Your task to perform on an android device: open sync settings in chrome Image 0: 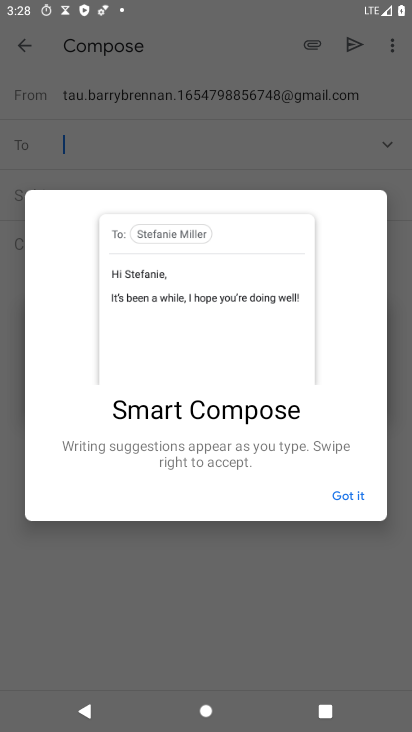
Step 0: press home button
Your task to perform on an android device: open sync settings in chrome Image 1: 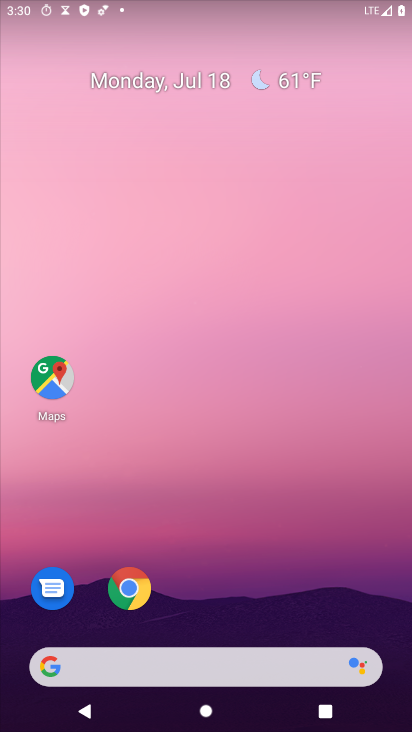
Step 1: drag from (256, 488) to (237, 5)
Your task to perform on an android device: open sync settings in chrome Image 2: 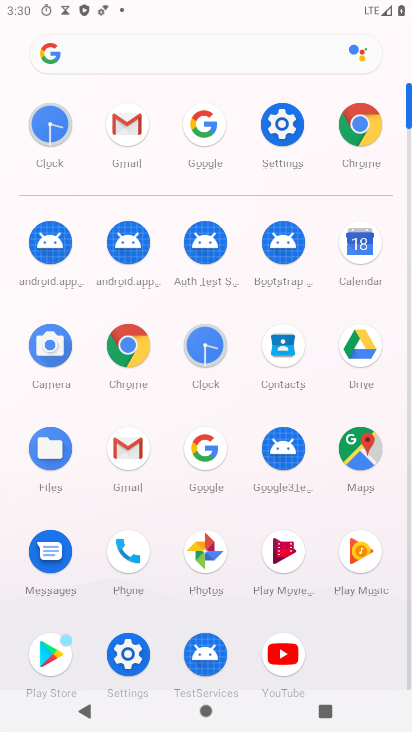
Step 2: click (358, 125)
Your task to perform on an android device: open sync settings in chrome Image 3: 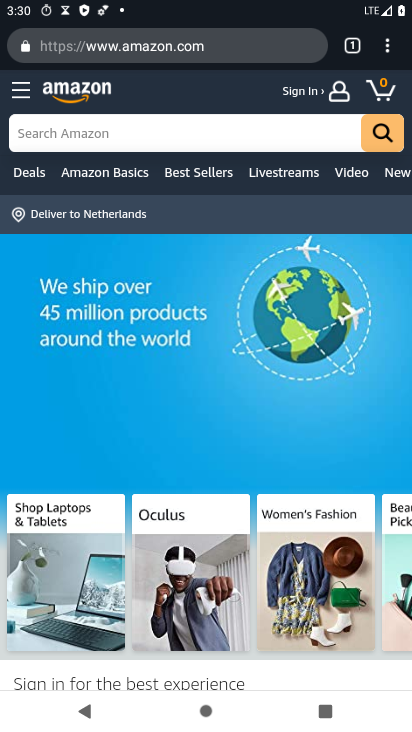
Step 3: drag from (394, 43) to (298, 548)
Your task to perform on an android device: open sync settings in chrome Image 4: 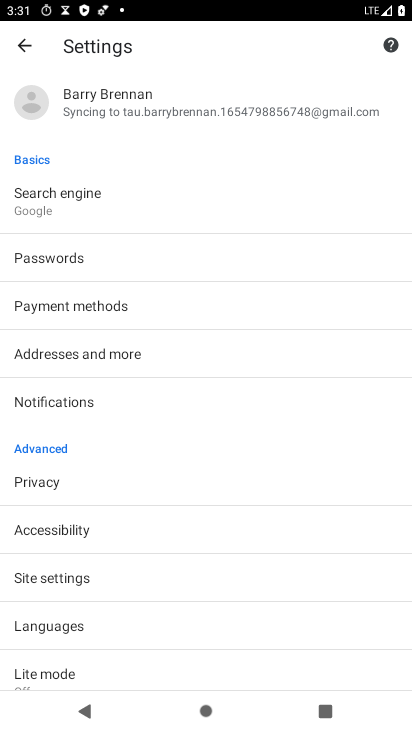
Step 4: drag from (219, 539) to (159, 52)
Your task to perform on an android device: open sync settings in chrome Image 5: 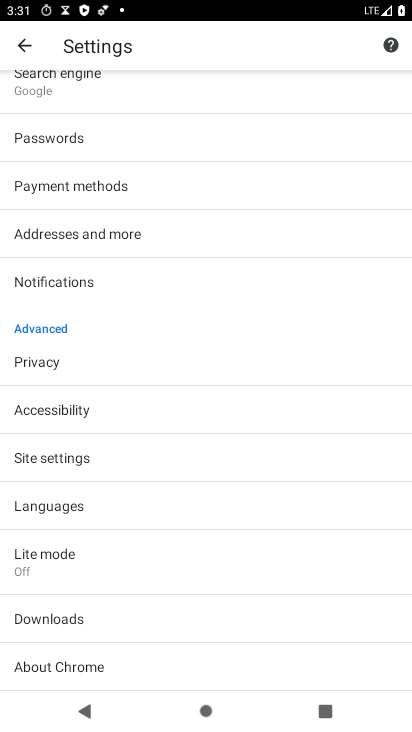
Step 5: click (24, 465)
Your task to perform on an android device: open sync settings in chrome Image 6: 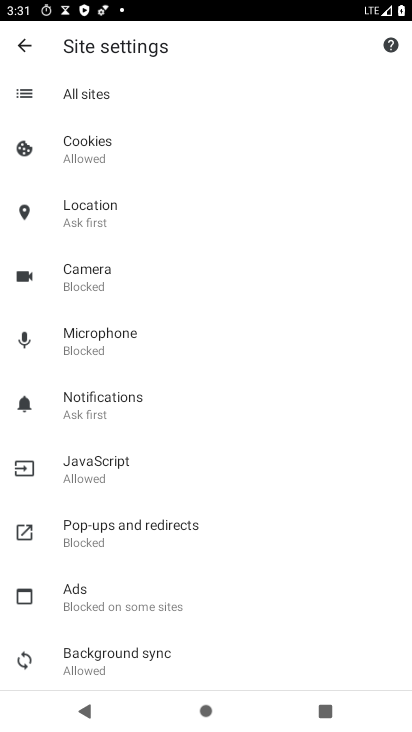
Step 6: drag from (205, 584) to (219, 240)
Your task to perform on an android device: open sync settings in chrome Image 7: 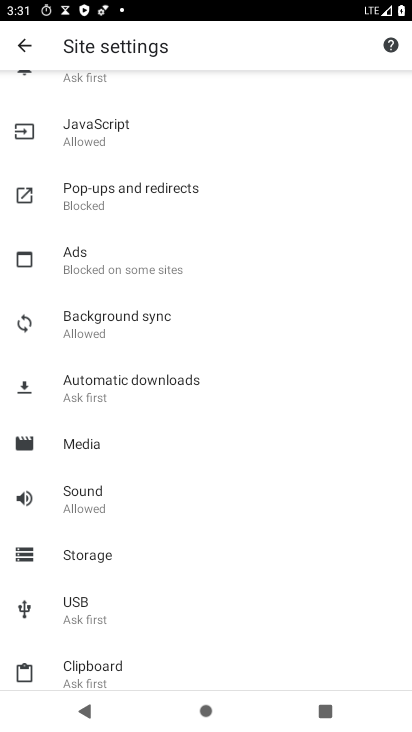
Step 7: click (123, 330)
Your task to perform on an android device: open sync settings in chrome Image 8: 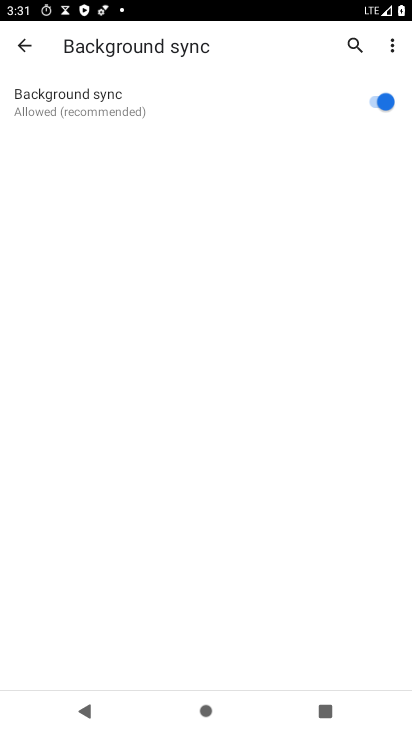
Step 8: task complete